Your task to perform on an android device: turn notification dots off Image 0: 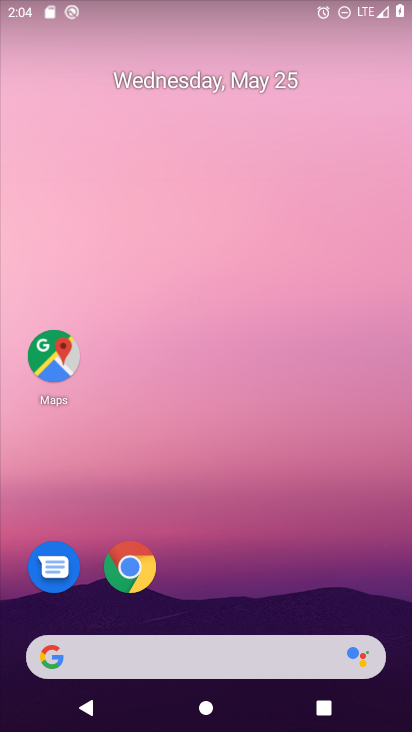
Step 0: press home button
Your task to perform on an android device: turn notification dots off Image 1: 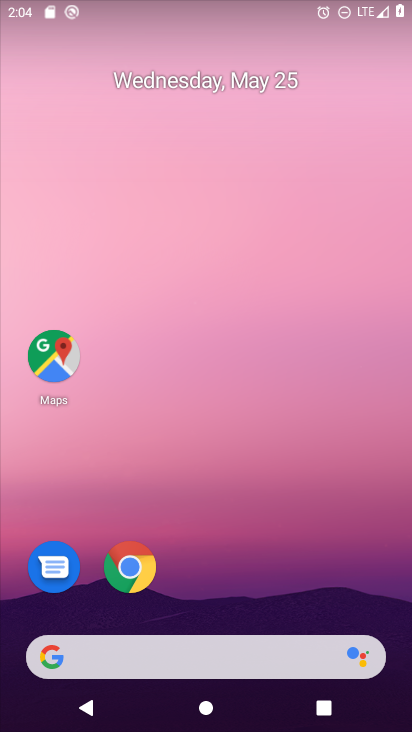
Step 1: drag from (389, 635) to (366, 273)
Your task to perform on an android device: turn notification dots off Image 2: 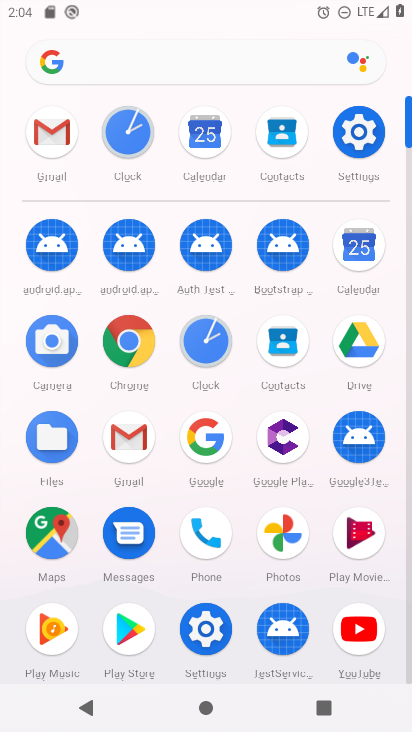
Step 2: click (353, 126)
Your task to perform on an android device: turn notification dots off Image 3: 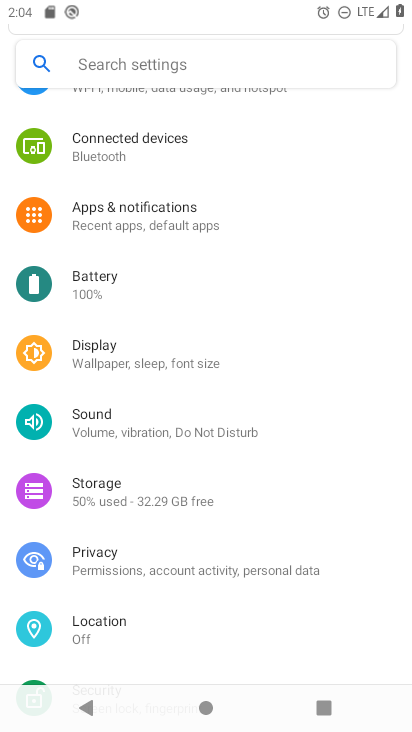
Step 3: click (164, 198)
Your task to perform on an android device: turn notification dots off Image 4: 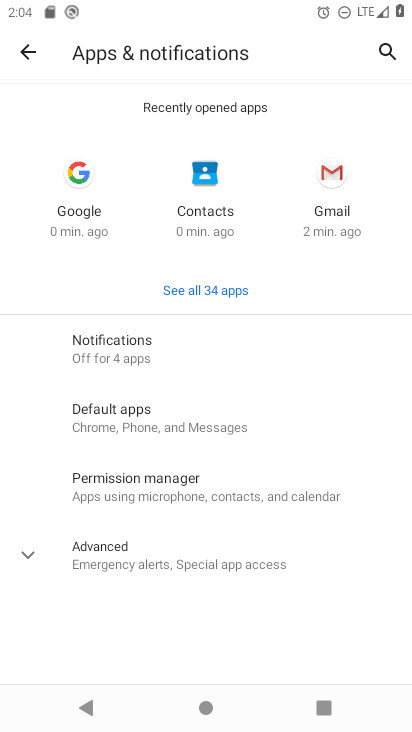
Step 4: click (90, 352)
Your task to perform on an android device: turn notification dots off Image 5: 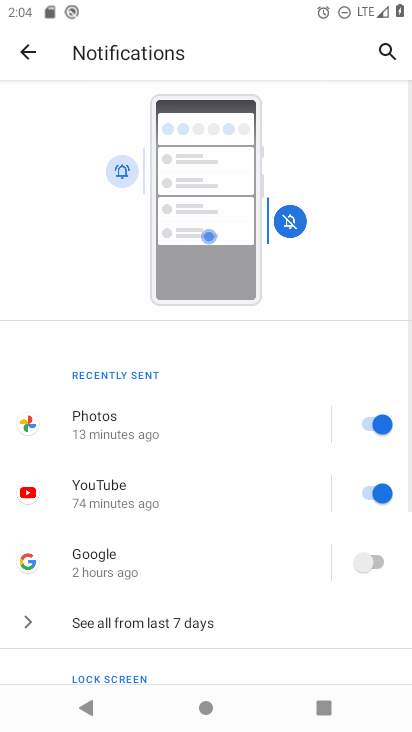
Step 5: drag from (260, 668) to (271, 199)
Your task to perform on an android device: turn notification dots off Image 6: 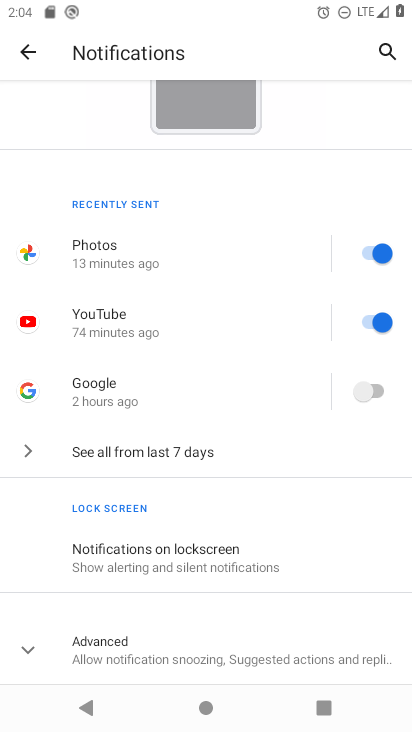
Step 6: click (34, 647)
Your task to perform on an android device: turn notification dots off Image 7: 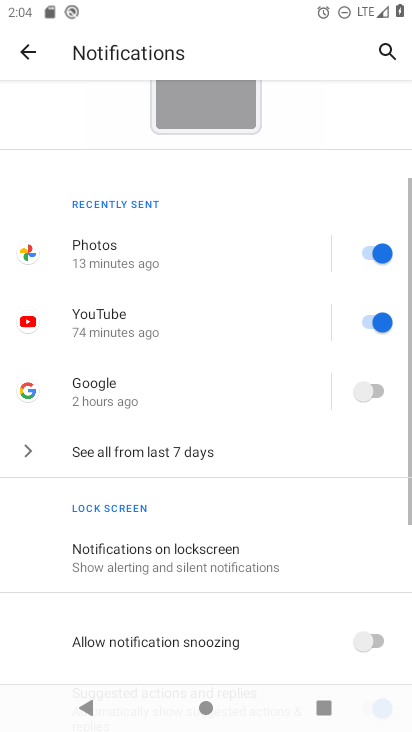
Step 7: task complete